Your task to perform on an android device: Open eBay Image 0: 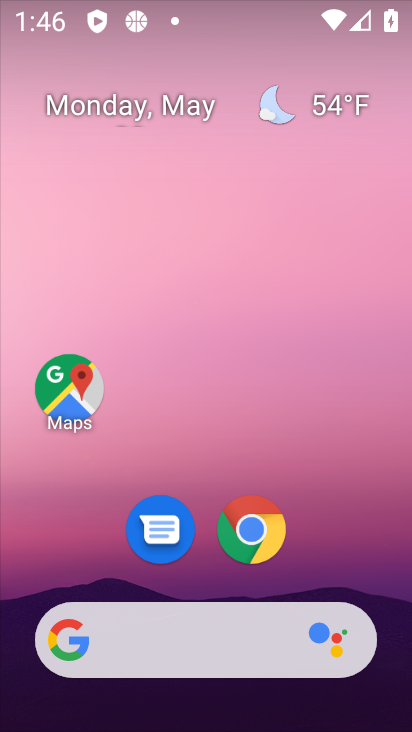
Step 0: click (239, 530)
Your task to perform on an android device: Open eBay Image 1: 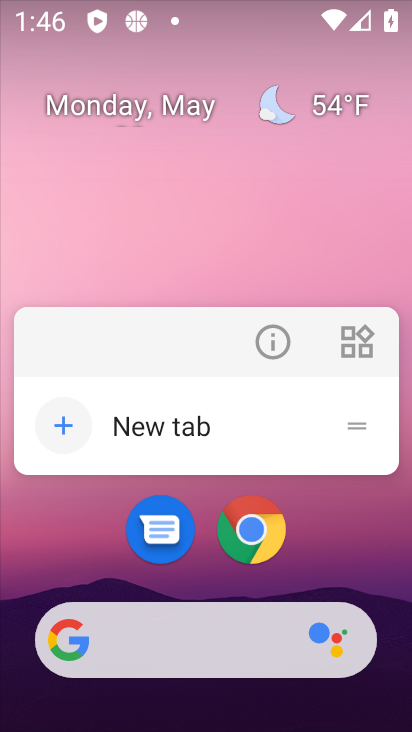
Step 1: click (262, 530)
Your task to perform on an android device: Open eBay Image 2: 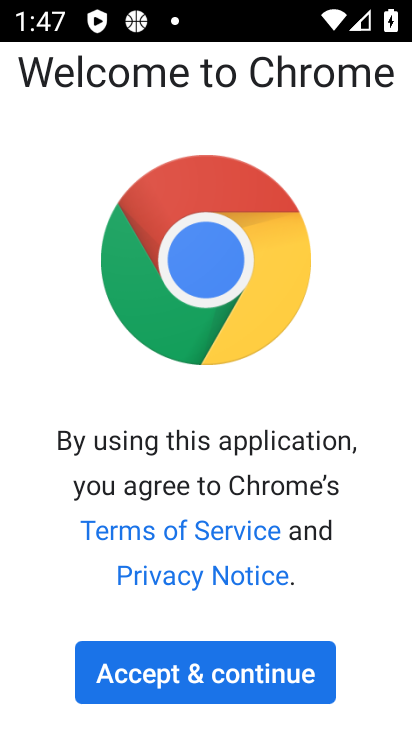
Step 2: click (267, 684)
Your task to perform on an android device: Open eBay Image 3: 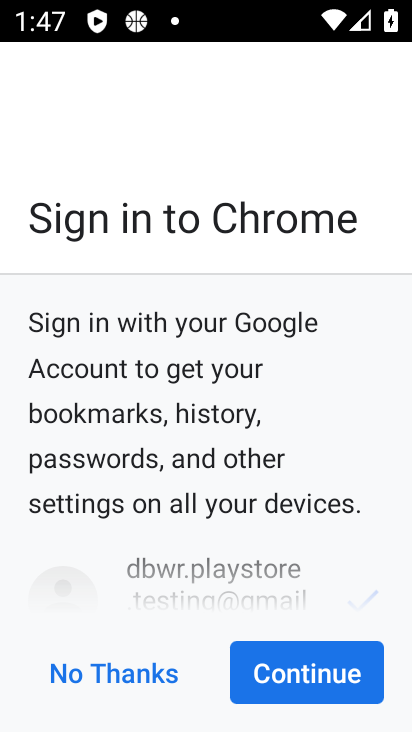
Step 3: click (282, 681)
Your task to perform on an android device: Open eBay Image 4: 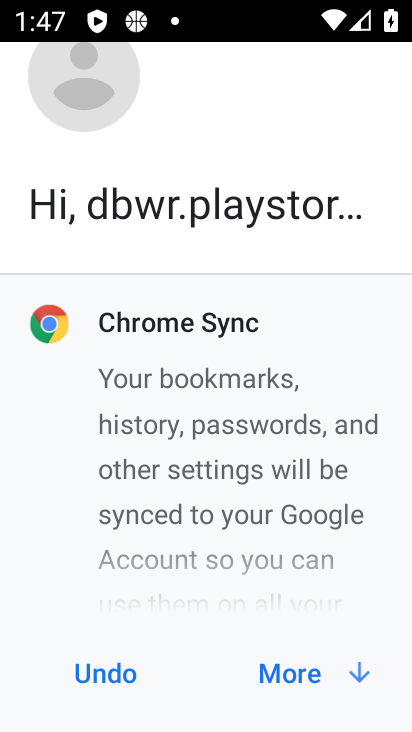
Step 4: click (288, 673)
Your task to perform on an android device: Open eBay Image 5: 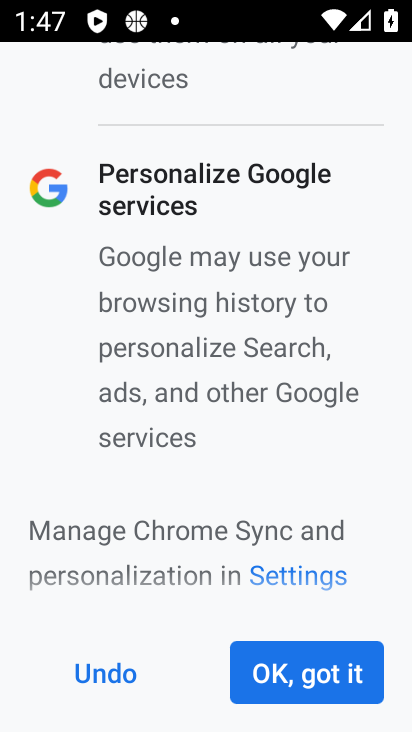
Step 5: click (288, 673)
Your task to perform on an android device: Open eBay Image 6: 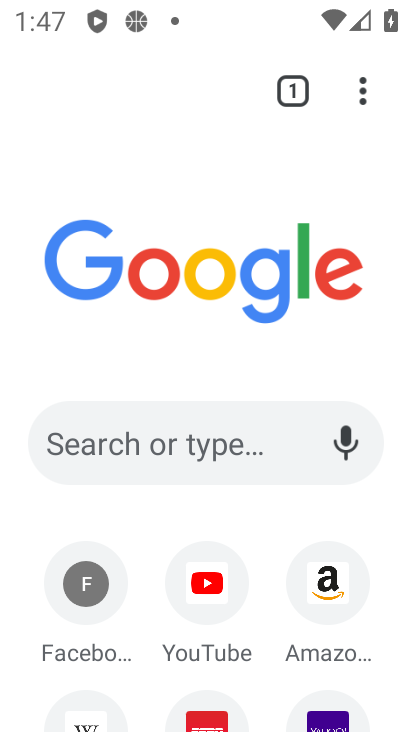
Step 6: drag from (223, 663) to (279, 468)
Your task to perform on an android device: Open eBay Image 7: 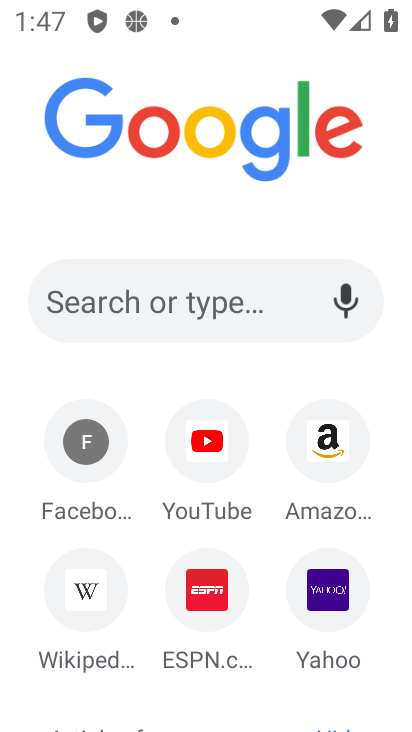
Step 7: click (200, 313)
Your task to perform on an android device: Open eBay Image 8: 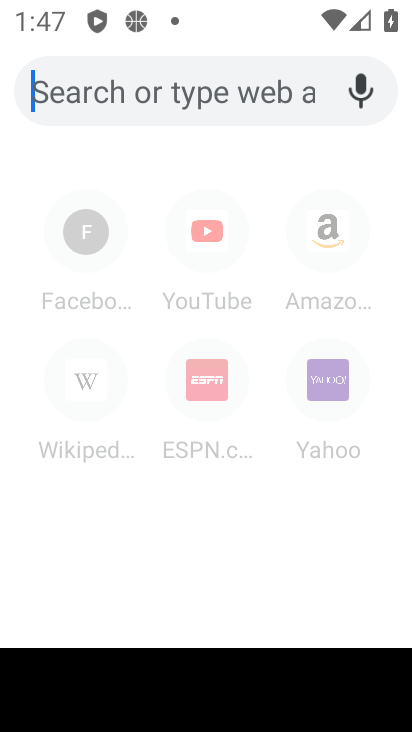
Step 8: type "eBay"
Your task to perform on an android device: Open eBay Image 9: 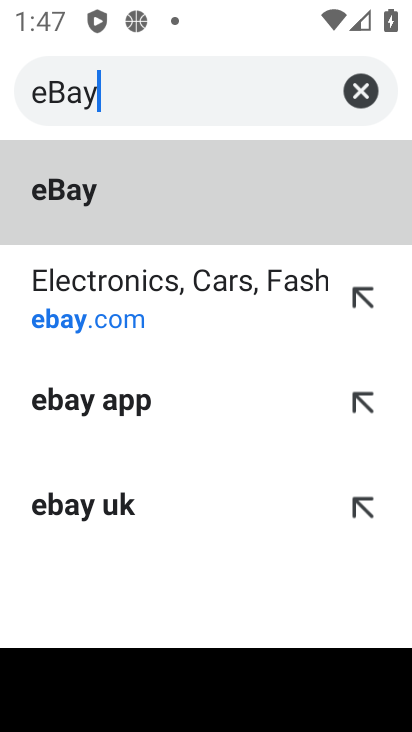
Step 9: click (96, 299)
Your task to perform on an android device: Open eBay Image 10: 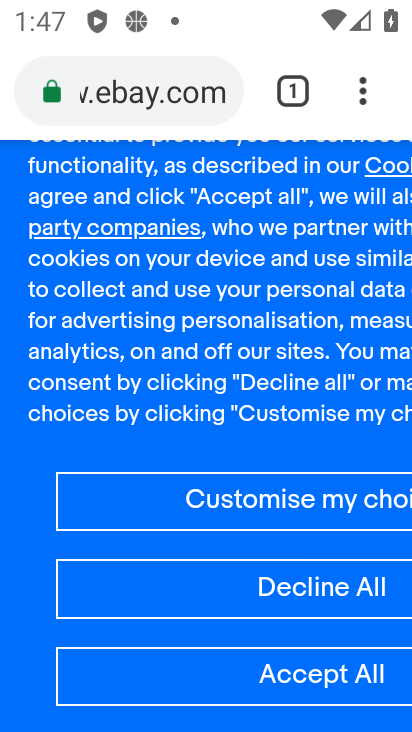
Step 10: click (228, 679)
Your task to perform on an android device: Open eBay Image 11: 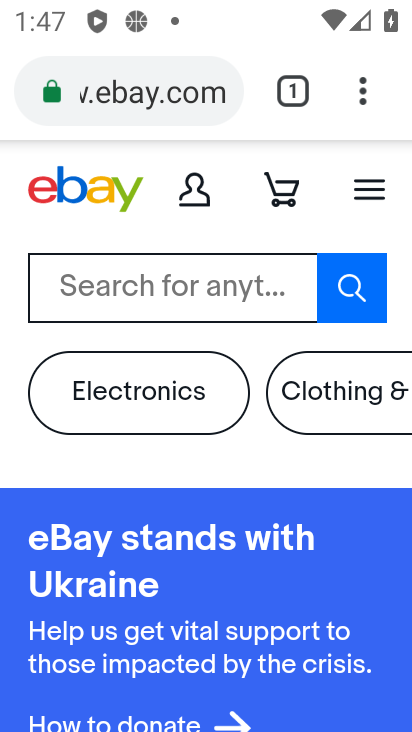
Step 11: task complete